Your task to perform on an android device: Open calendar and show me the fourth week of next month Image 0: 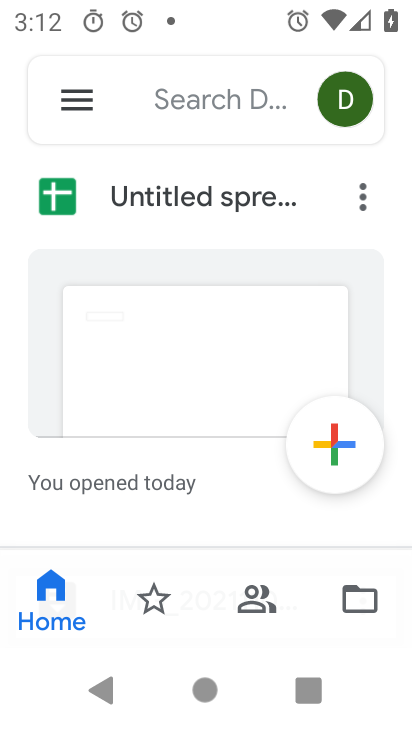
Step 0: press home button
Your task to perform on an android device: Open calendar and show me the fourth week of next month Image 1: 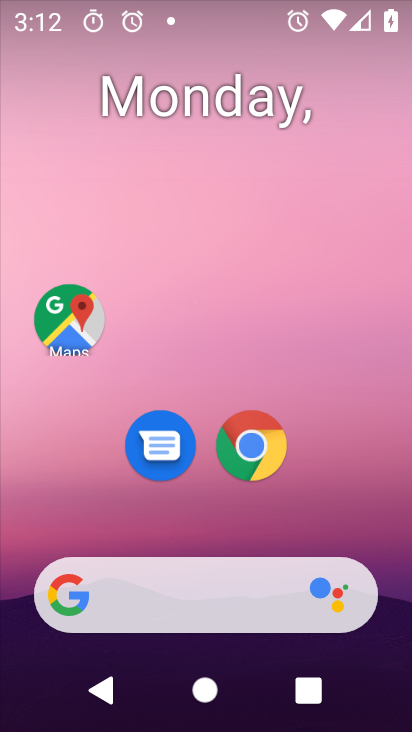
Step 1: drag from (214, 573) to (202, 76)
Your task to perform on an android device: Open calendar and show me the fourth week of next month Image 2: 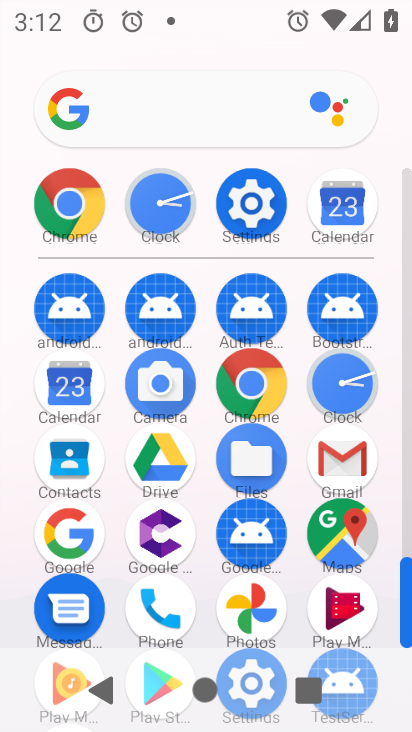
Step 2: click (72, 397)
Your task to perform on an android device: Open calendar and show me the fourth week of next month Image 3: 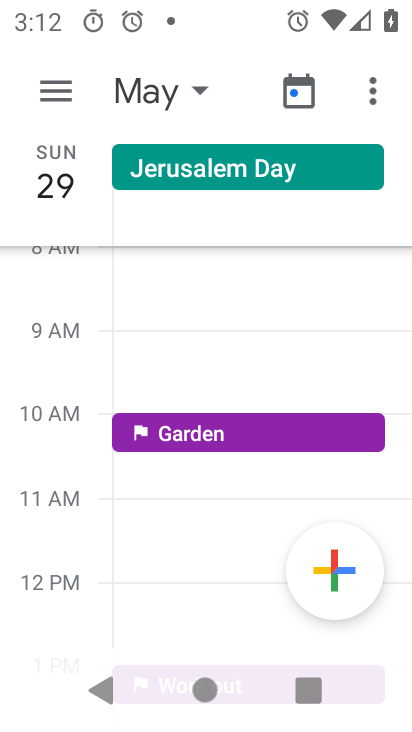
Step 3: click (55, 87)
Your task to perform on an android device: Open calendar and show me the fourth week of next month Image 4: 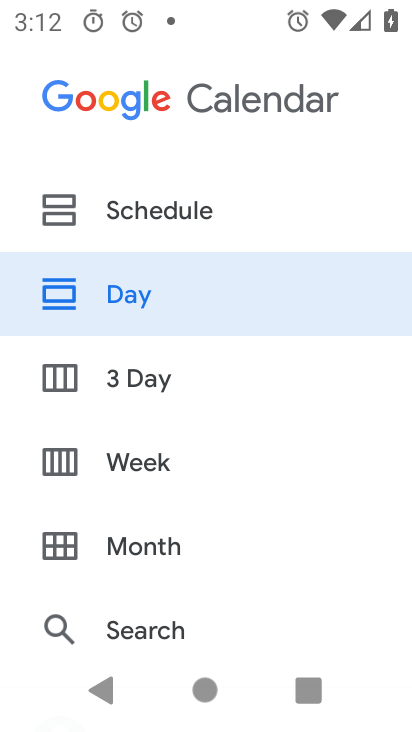
Step 4: click (163, 539)
Your task to perform on an android device: Open calendar and show me the fourth week of next month Image 5: 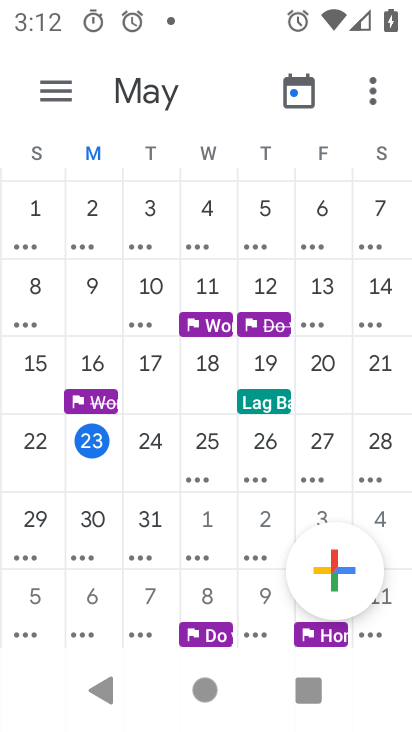
Step 5: task complete